Your task to perform on an android device: visit the assistant section in the google photos Image 0: 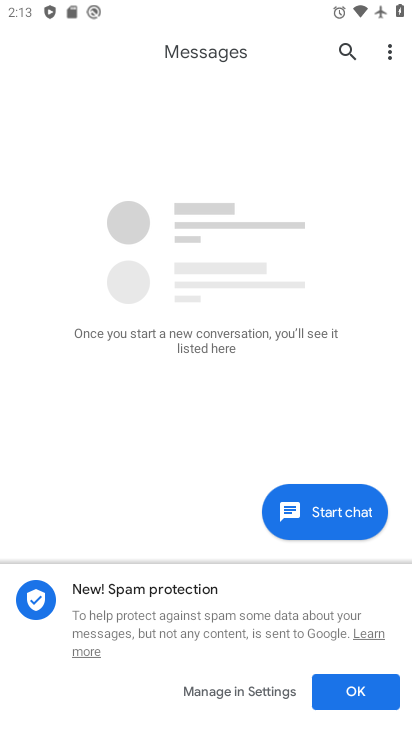
Step 0: press back button
Your task to perform on an android device: visit the assistant section in the google photos Image 1: 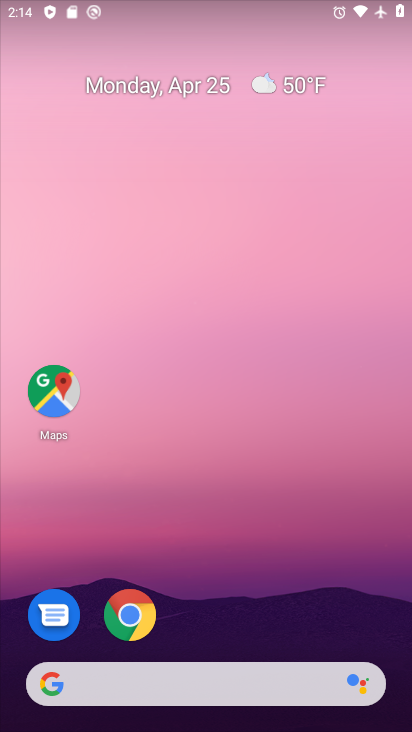
Step 1: drag from (223, 499) to (244, 0)
Your task to perform on an android device: visit the assistant section in the google photos Image 2: 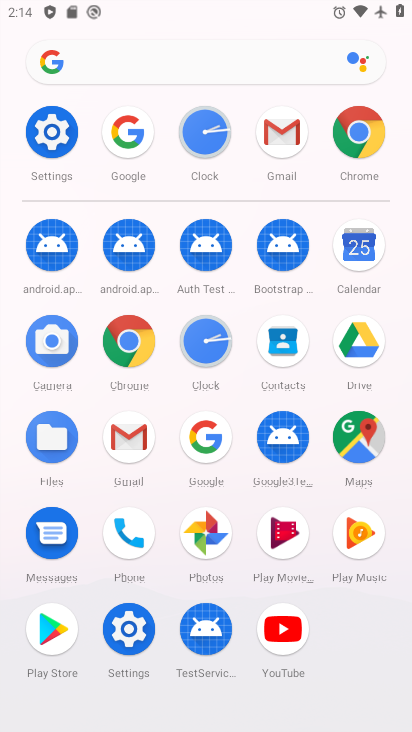
Step 2: click (205, 531)
Your task to perform on an android device: visit the assistant section in the google photos Image 3: 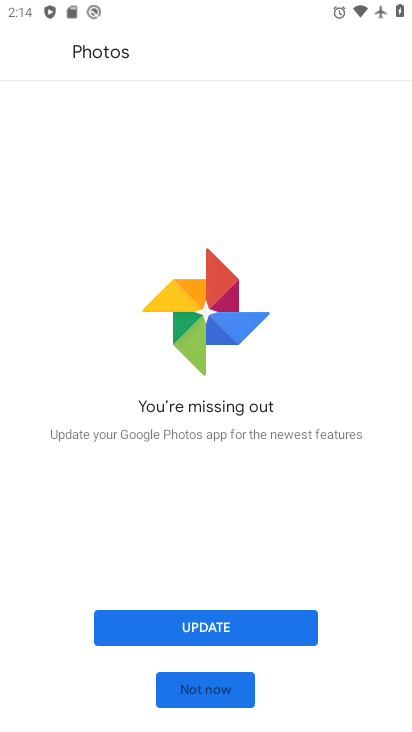
Step 3: click (208, 690)
Your task to perform on an android device: visit the assistant section in the google photos Image 4: 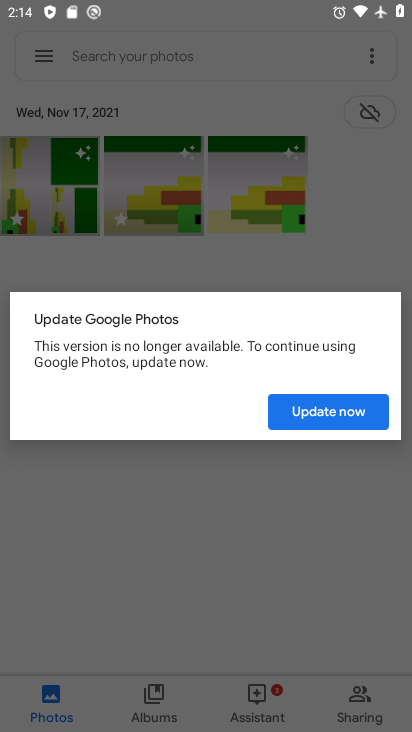
Step 4: click (253, 699)
Your task to perform on an android device: visit the assistant section in the google photos Image 5: 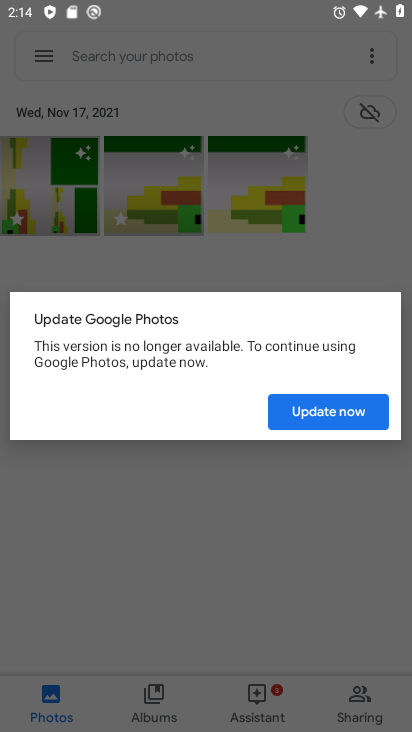
Step 5: click (267, 688)
Your task to perform on an android device: visit the assistant section in the google photos Image 6: 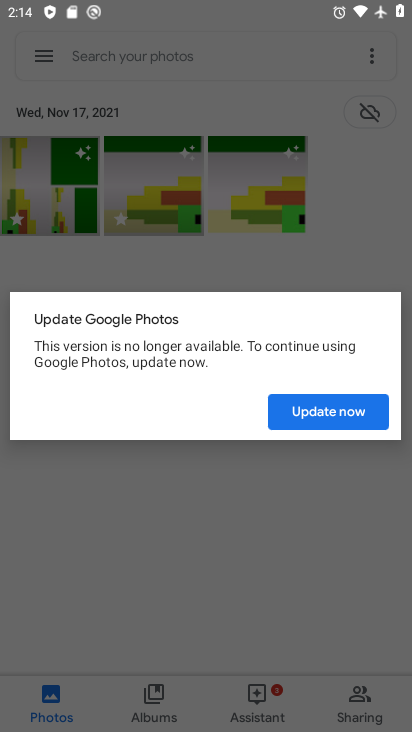
Step 6: click (322, 410)
Your task to perform on an android device: visit the assistant section in the google photos Image 7: 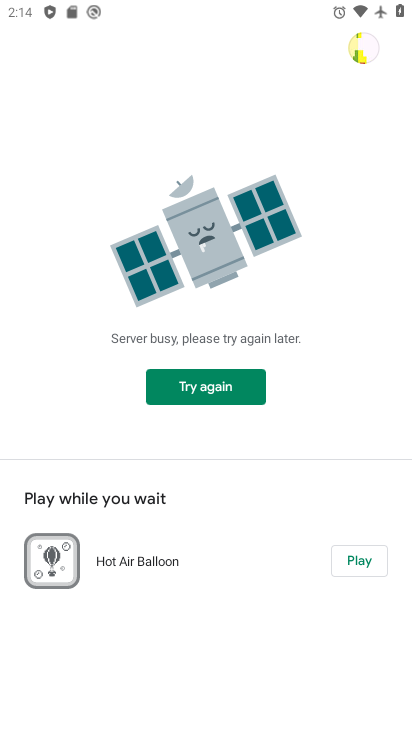
Step 7: task complete